Your task to perform on an android device: Open ESPN.com Image 0: 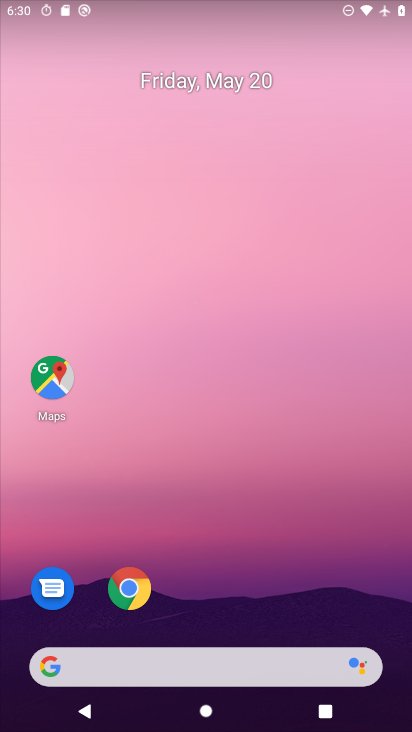
Step 0: click (131, 595)
Your task to perform on an android device: Open ESPN.com Image 1: 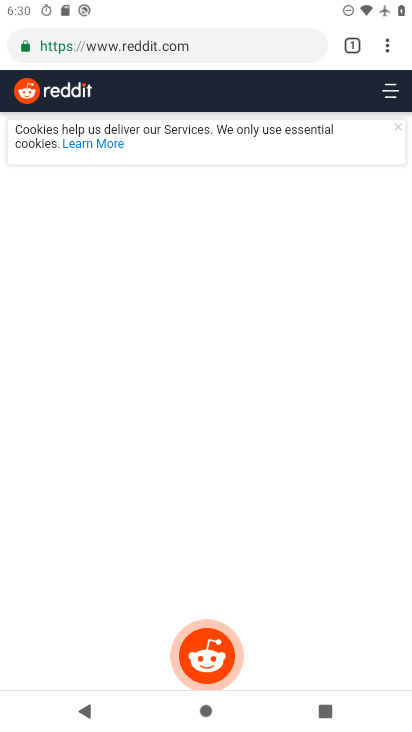
Step 1: click (111, 48)
Your task to perform on an android device: Open ESPN.com Image 2: 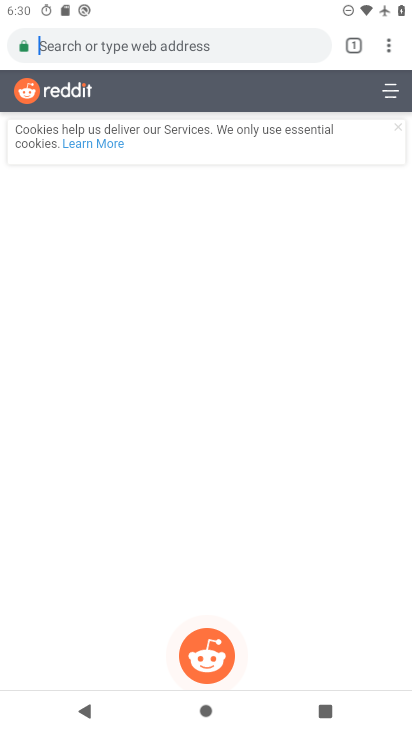
Step 2: click (111, 48)
Your task to perform on an android device: Open ESPN.com Image 3: 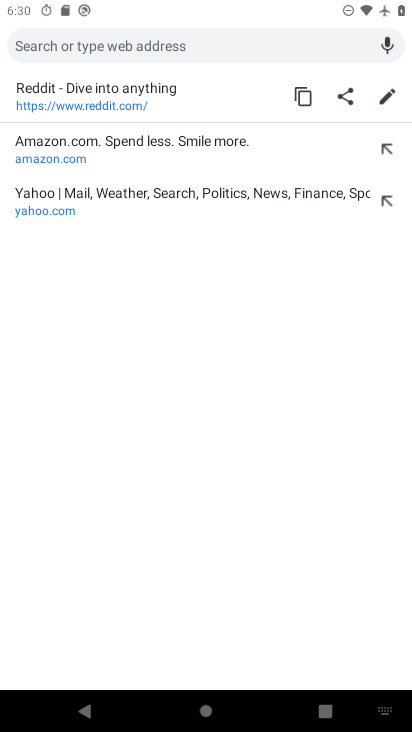
Step 3: type "www.espn.com"
Your task to perform on an android device: Open ESPN.com Image 4: 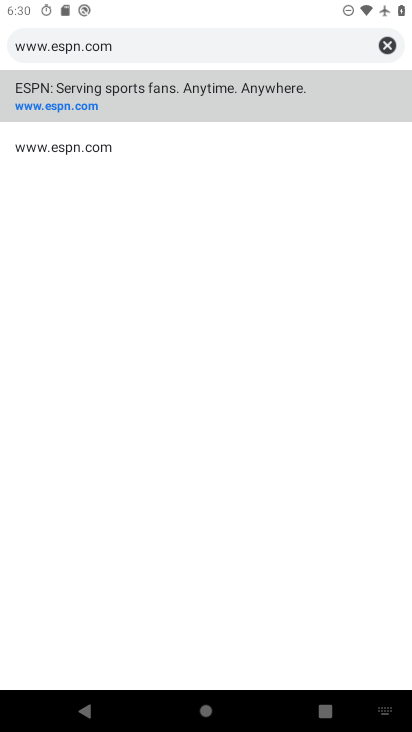
Step 4: click (178, 100)
Your task to perform on an android device: Open ESPN.com Image 5: 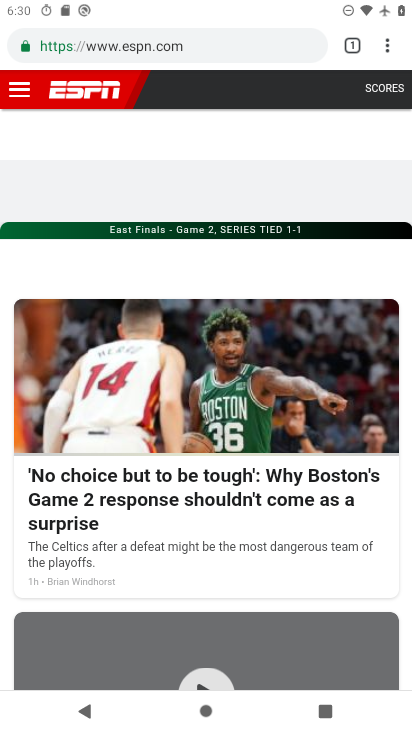
Step 5: task complete